Your task to perform on an android device: turn off airplane mode Image 0: 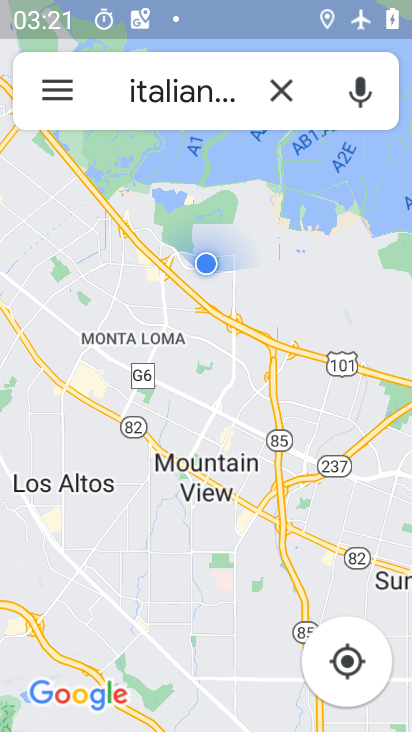
Step 0: press home button
Your task to perform on an android device: turn off airplane mode Image 1: 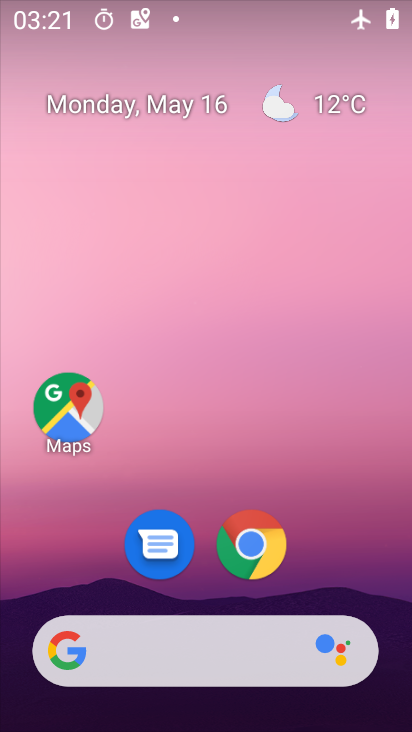
Step 1: drag from (230, 717) to (239, 185)
Your task to perform on an android device: turn off airplane mode Image 2: 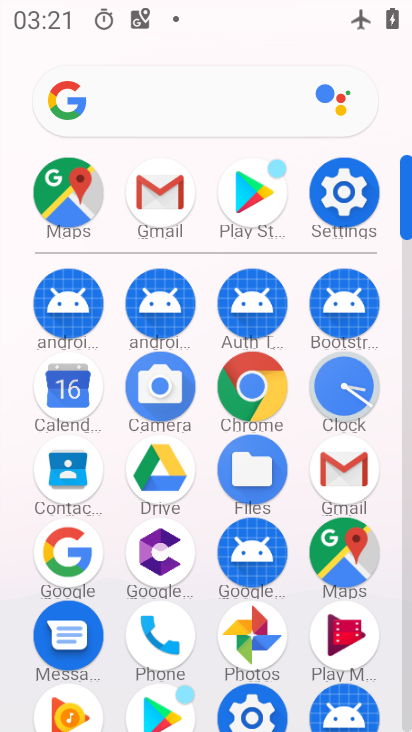
Step 2: click (343, 197)
Your task to perform on an android device: turn off airplane mode Image 3: 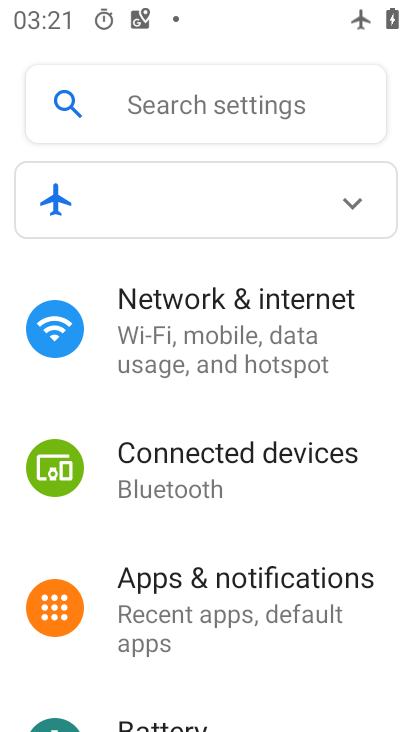
Step 3: click (172, 369)
Your task to perform on an android device: turn off airplane mode Image 4: 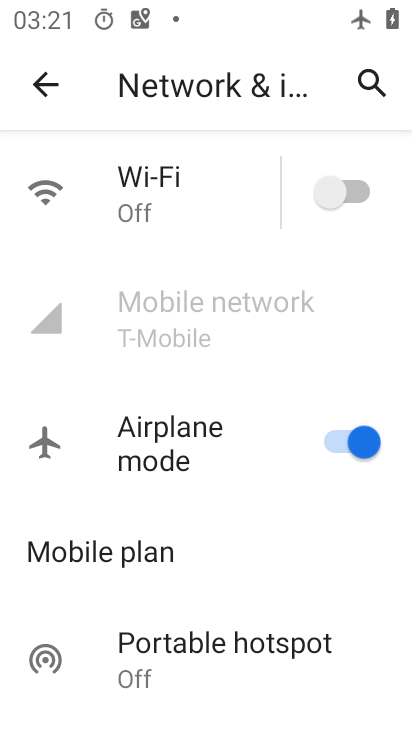
Step 4: click (336, 446)
Your task to perform on an android device: turn off airplane mode Image 5: 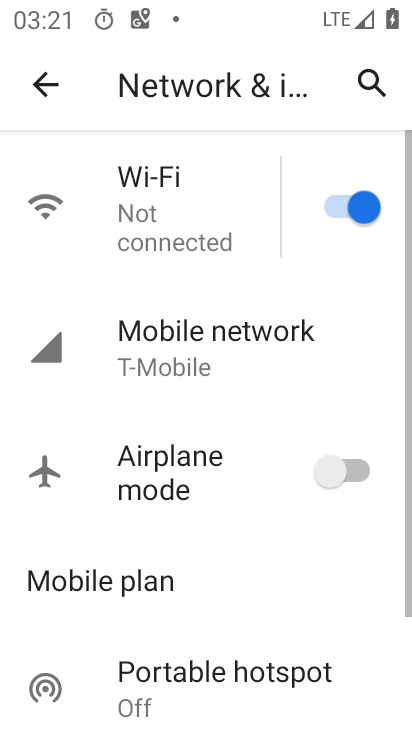
Step 5: task complete